Your task to perform on an android device: Open the web browser Image 0: 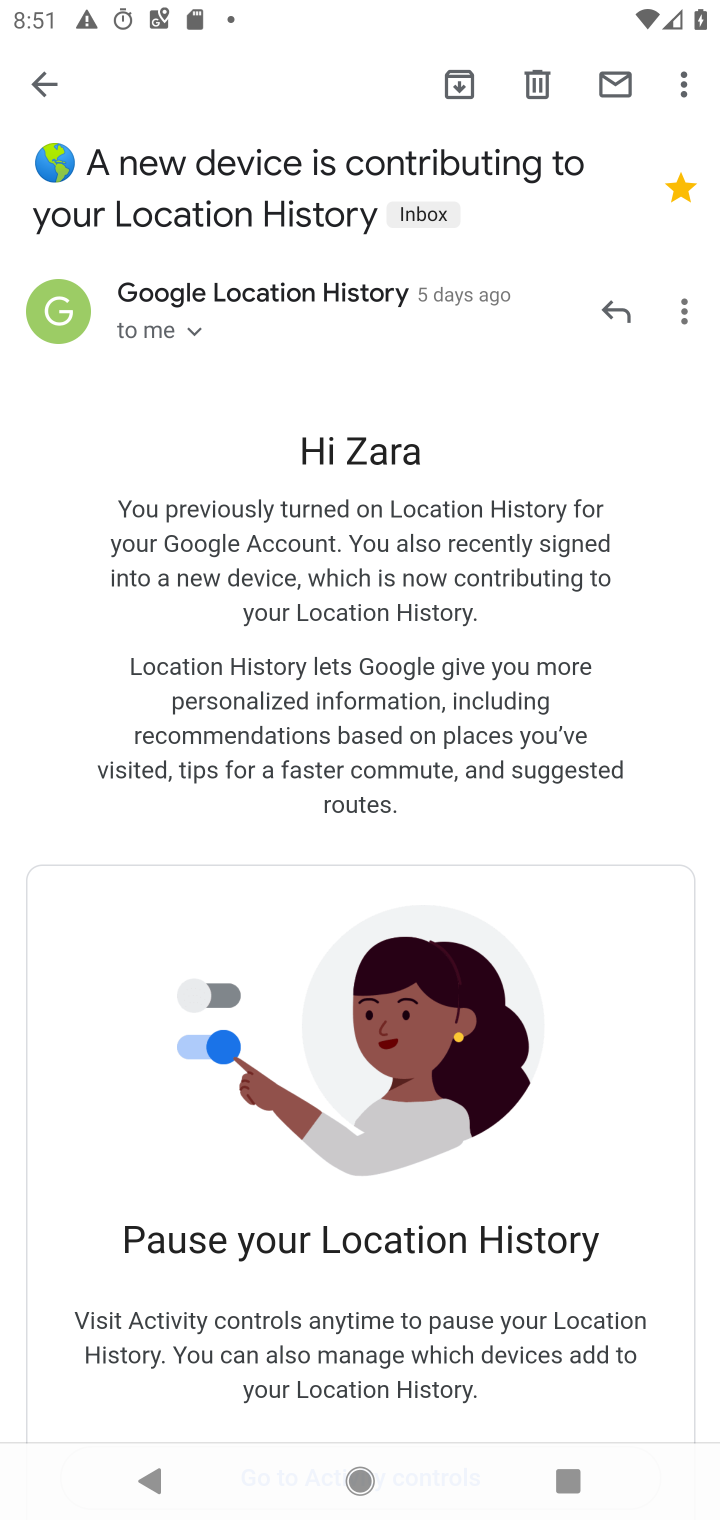
Step 0: press home button
Your task to perform on an android device: Open the web browser Image 1: 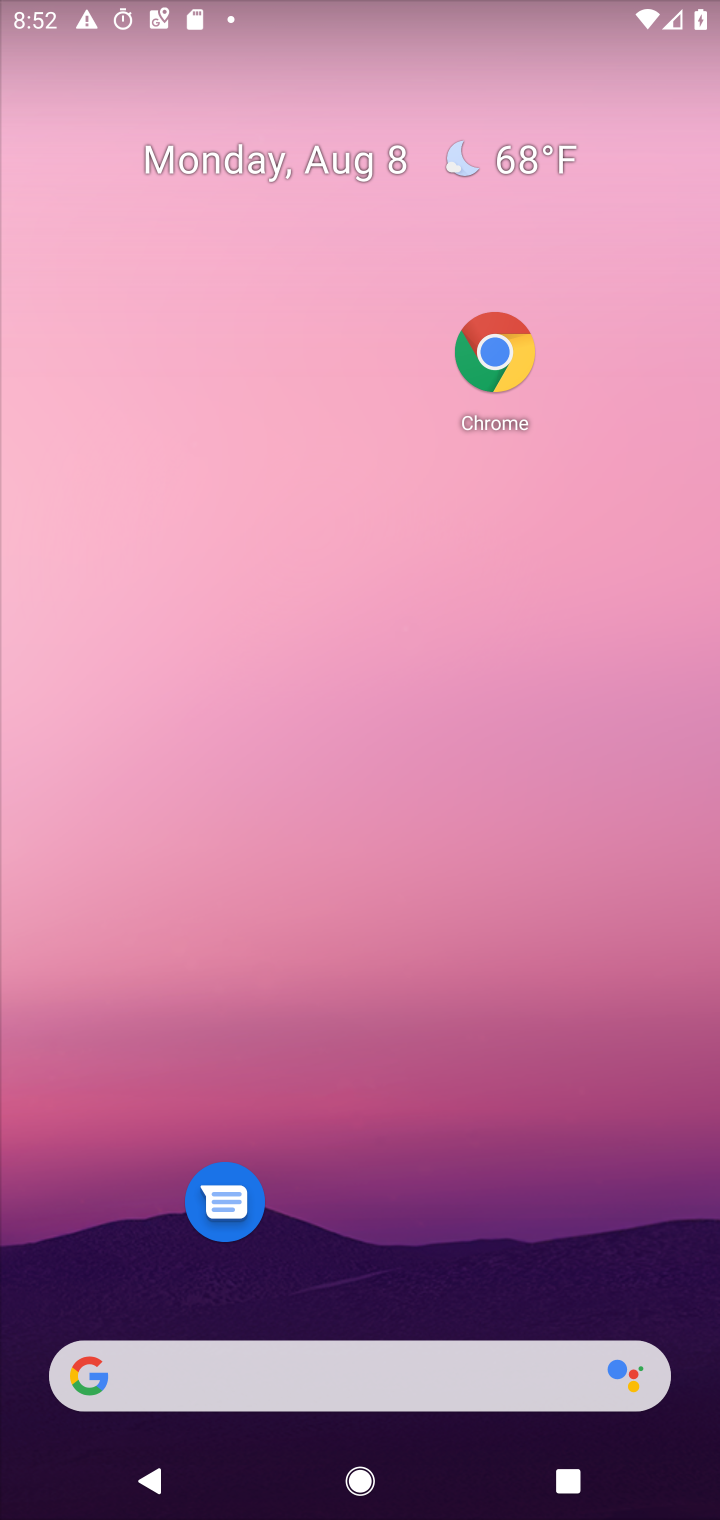
Step 1: drag from (380, 1318) to (462, 230)
Your task to perform on an android device: Open the web browser Image 2: 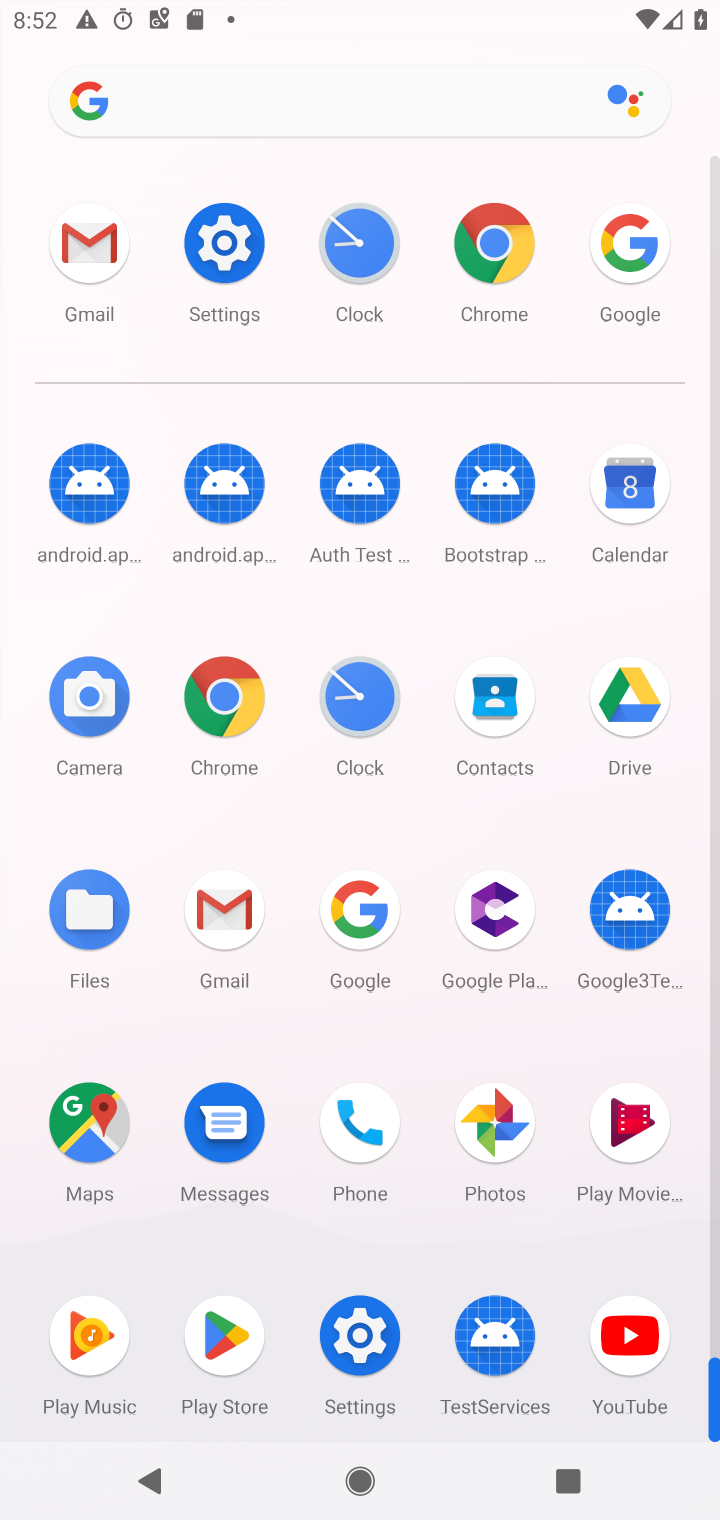
Step 2: click (502, 278)
Your task to perform on an android device: Open the web browser Image 3: 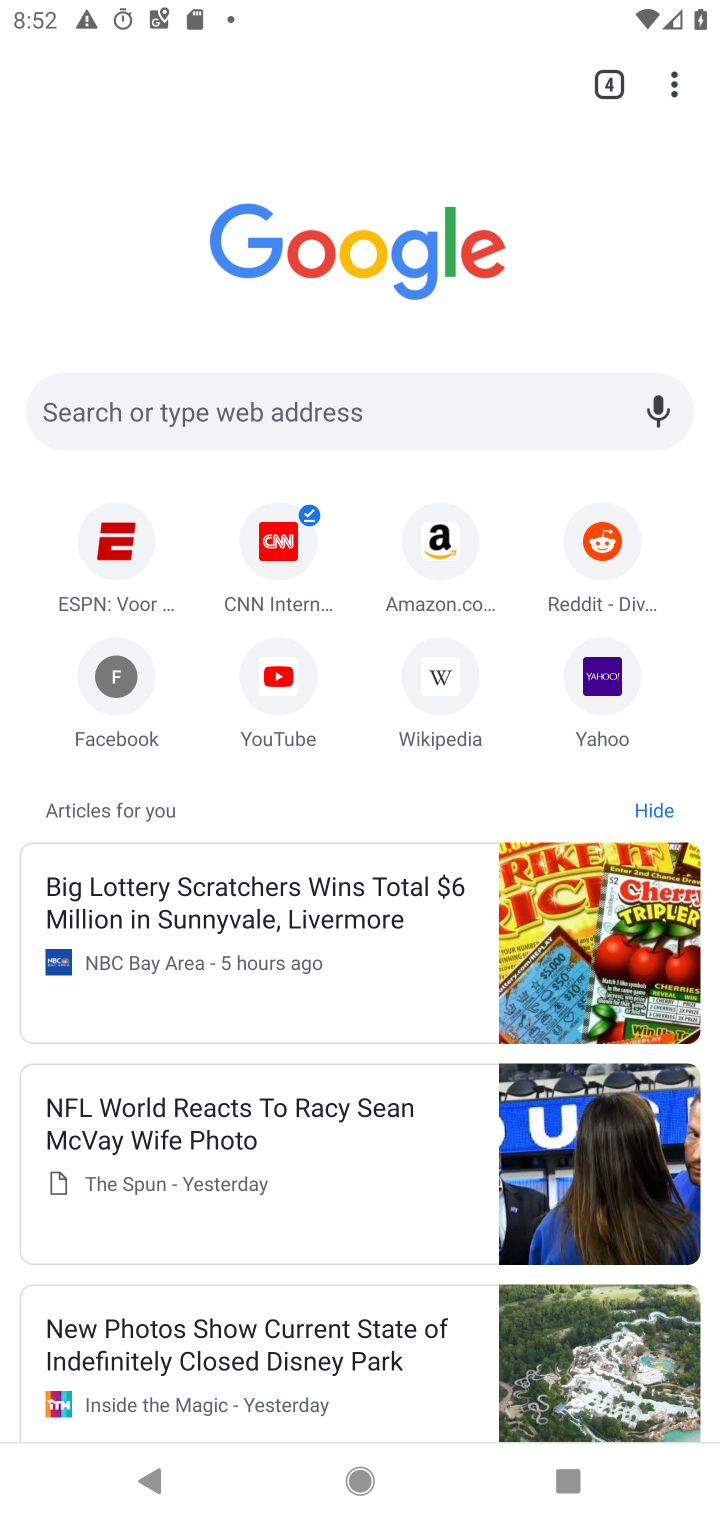
Step 3: task complete